Your task to perform on an android device: snooze an email in the gmail app Image 0: 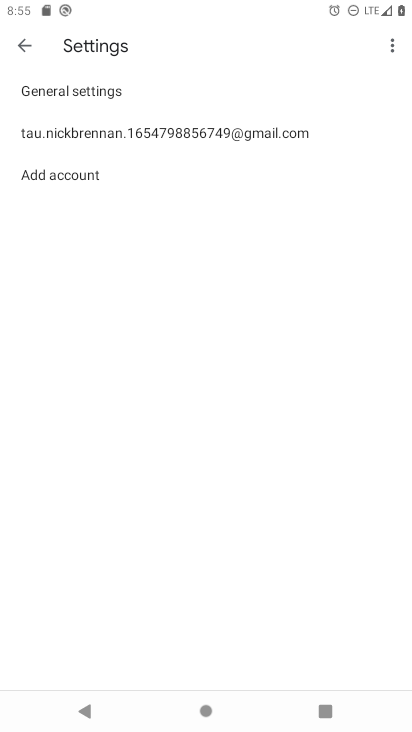
Step 0: press home button
Your task to perform on an android device: snooze an email in the gmail app Image 1: 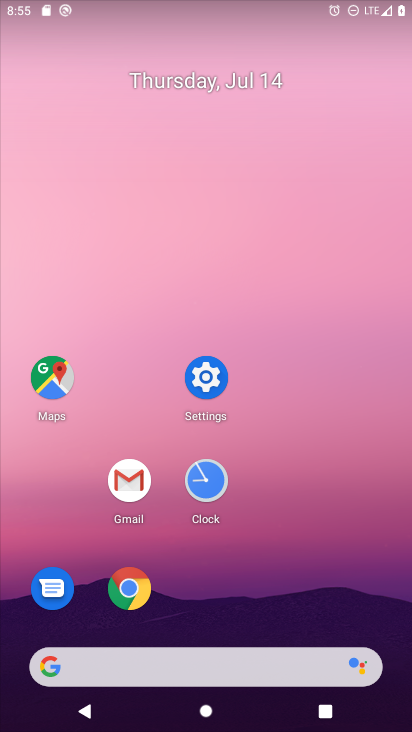
Step 1: click (154, 453)
Your task to perform on an android device: snooze an email in the gmail app Image 2: 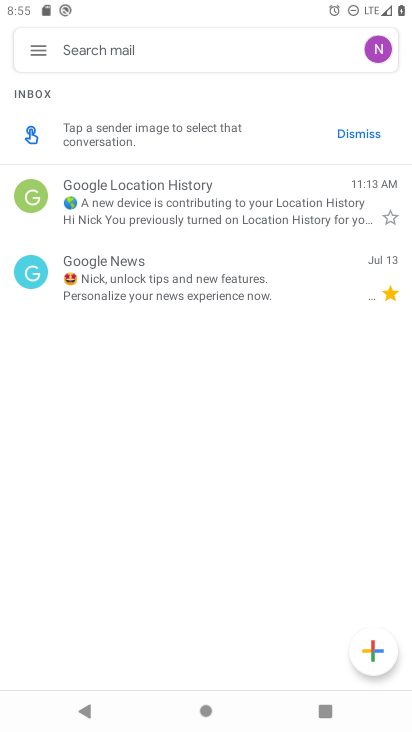
Step 2: click (274, 200)
Your task to perform on an android device: snooze an email in the gmail app Image 3: 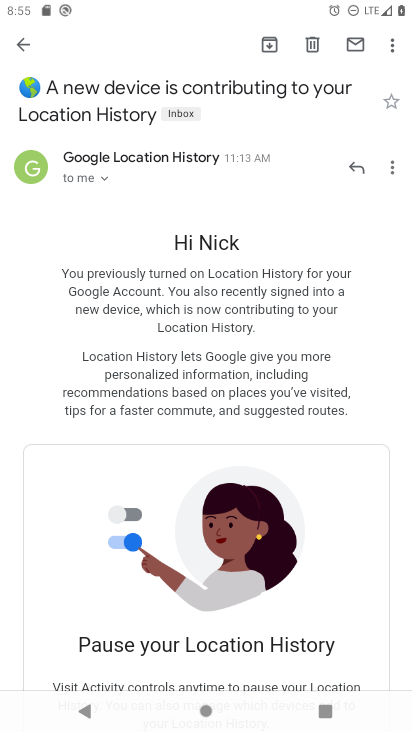
Step 3: click (385, 168)
Your task to perform on an android device: snooze an email in the gmail app Image 4: 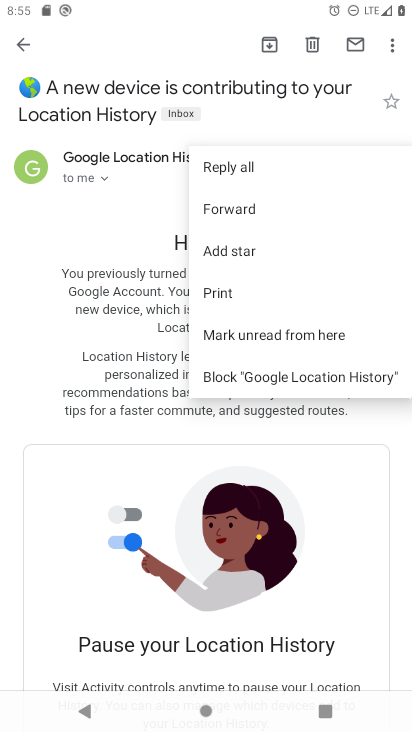
Step 4: drag from (331, 313) to (330, 86)
Your task to perform on an android device: snooze an email in the gmail app Image 5: 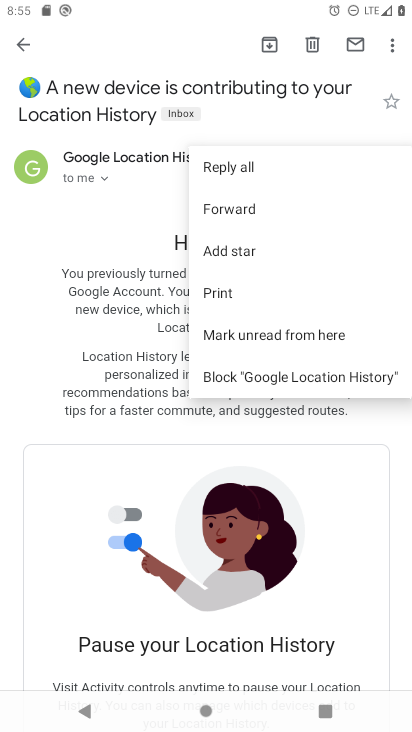
Step 5: drag from (382, 334) to (351, 128)
Your task to perform on an android device: snooze an email in the gmail app Image 6: 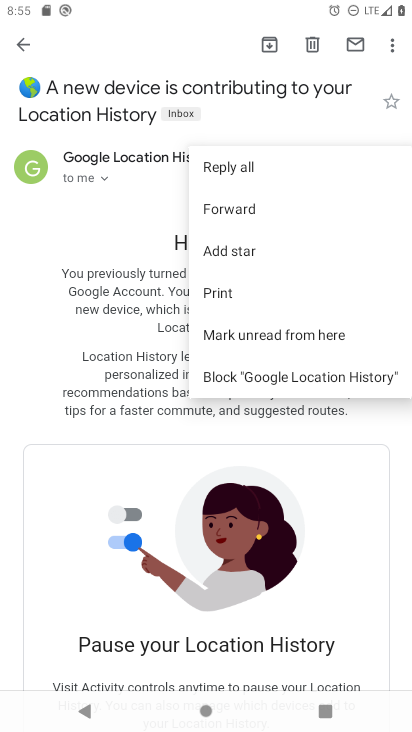
Step 6: drag from (371, 343) to (374, 156)
Your task to perform on an android device: snooze an email in the gmail app Image 7: 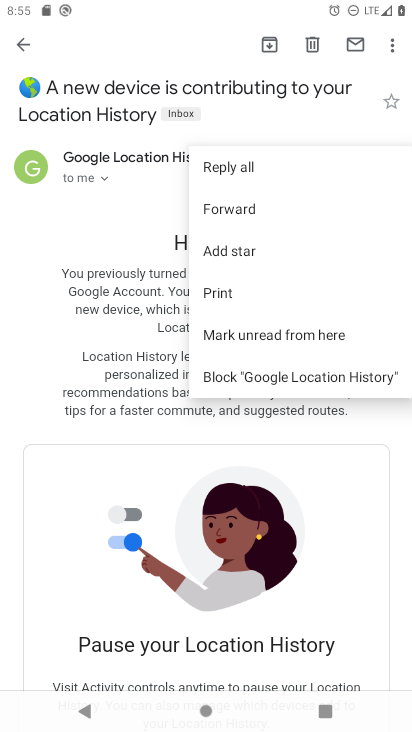
Step 7: click (140, 209)
Your task to perform on an android device: snooze an email in the gmail app Image 8: 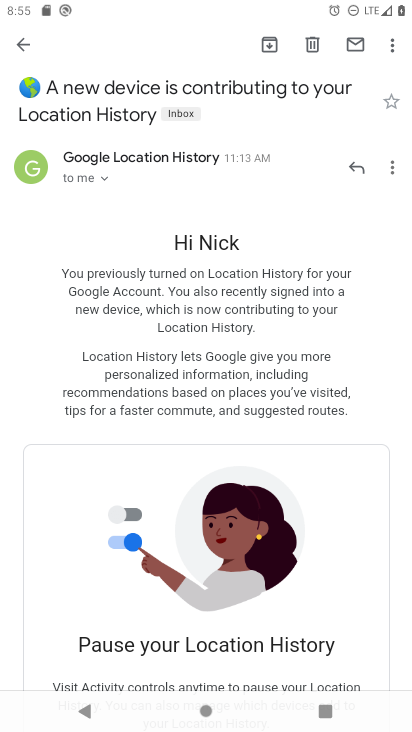
Step 8: click (392, 43)
Your task to perform on an android device: snooze an email in the gmail app Image 9: 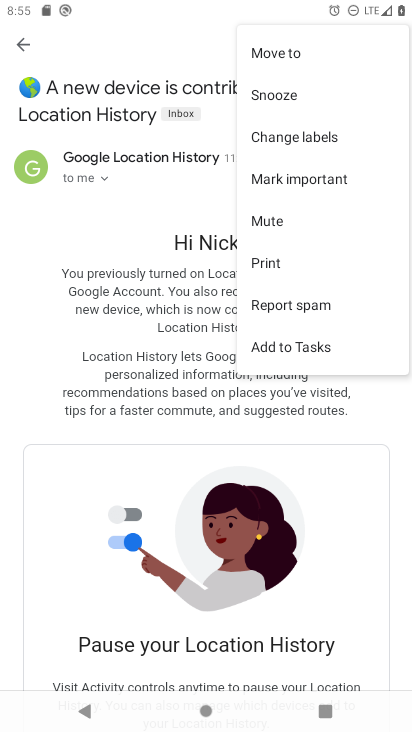
Step 9: click (281, 92)
Your task to perform on an android device: snooze an email in the gmail app Image 10: 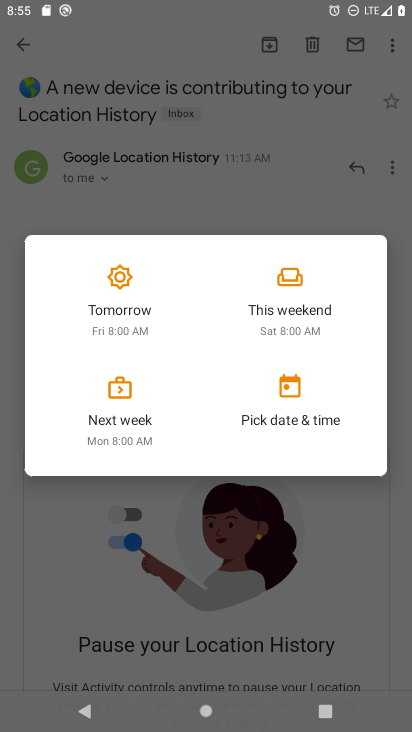
Step 10: click (115, 304)
Your task to perform on an android device: snooze an email in the gmail app Image 11: 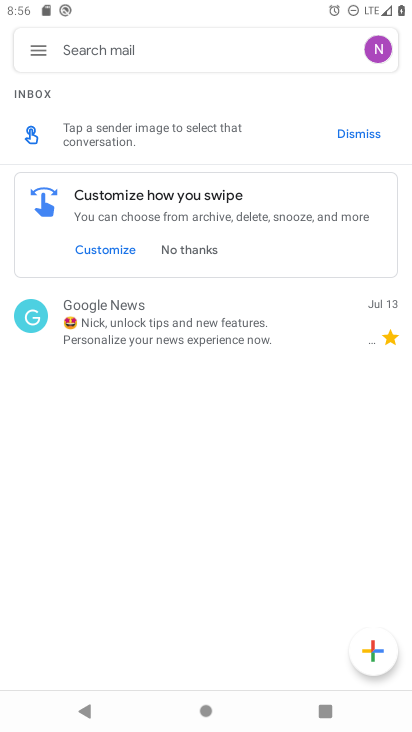
Step 11: task complete